Your task to perform on an android device: allow notifications from all sites in the chrome app Image 0: 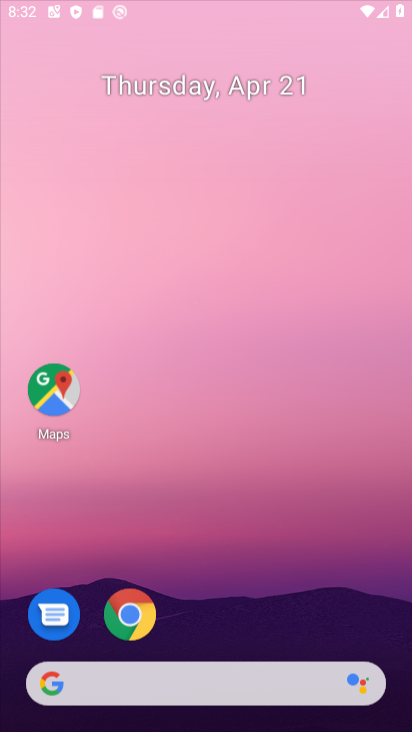
Step 0: click (129, 616)
Your task to perform on an android device: allow notifications from all sites in the chrome app Image 1: 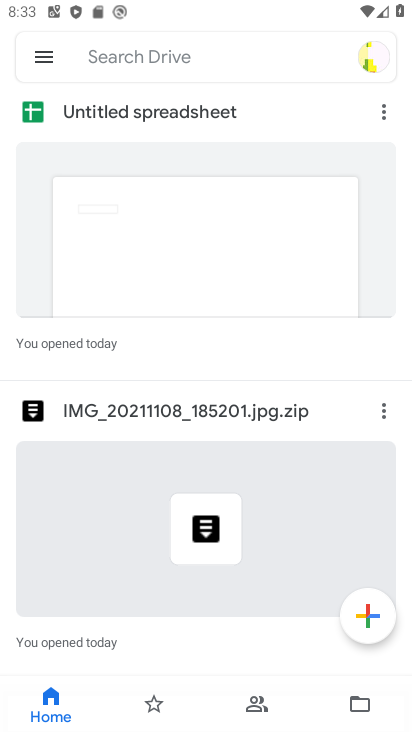
Step 1: press home button
Your task to perform on an android device: allow notifications from all sites in the chrome app Image 2: 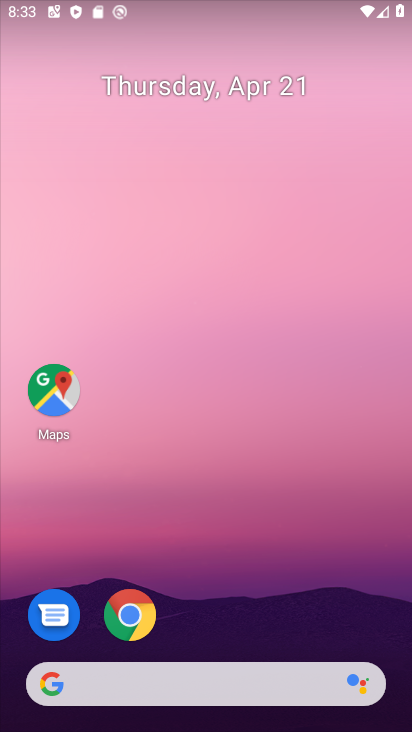
Step 2: click (136, 613)
Your task to perform on an android device: allow notifications from all sites in the chrome app Image 3: 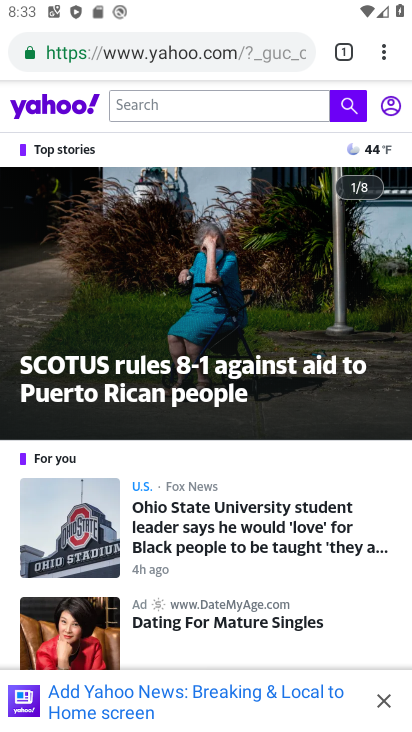
Step 3: click (379, 54)
Your task to perform on an android device: allow notifications from all sites in the chrome app Image 4: 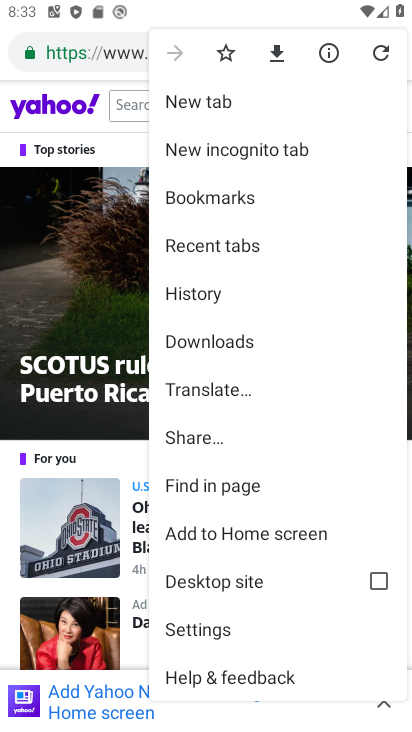
Step 4: click (226, 619)
Your task to perform on an android device: allow notifications from all sites in the chrome app Image 5: 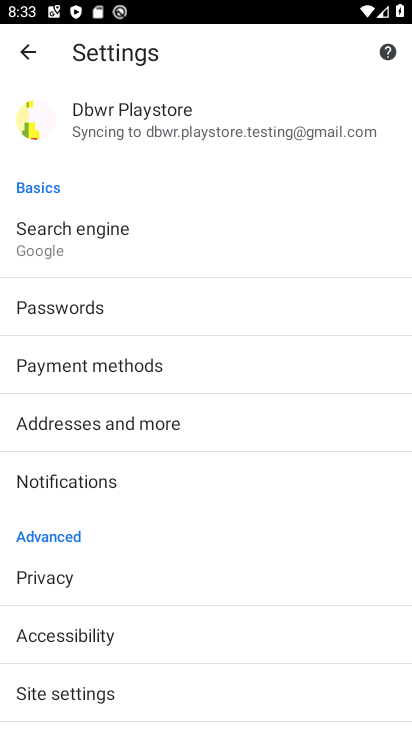
Step 5: click (117, 698)
Your task to perform on an android device: allow notifications from all sites in the chrome app Image 6: 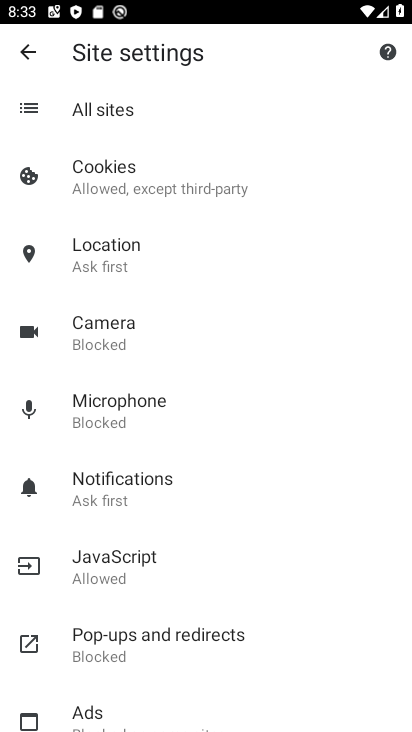
Step 6: click (146, 502)
Your task to perform on an android device: allow notifications from all sites in the chrome app Image 7: 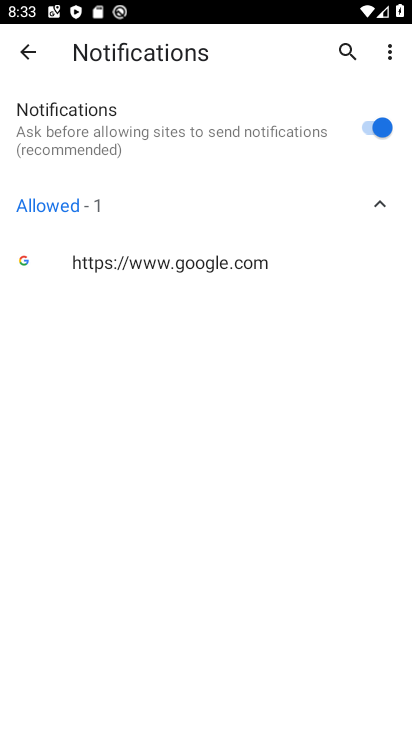
Step 7: task complete